Your task to perform on an android device: move a message to another label in the gmail app Image 0: 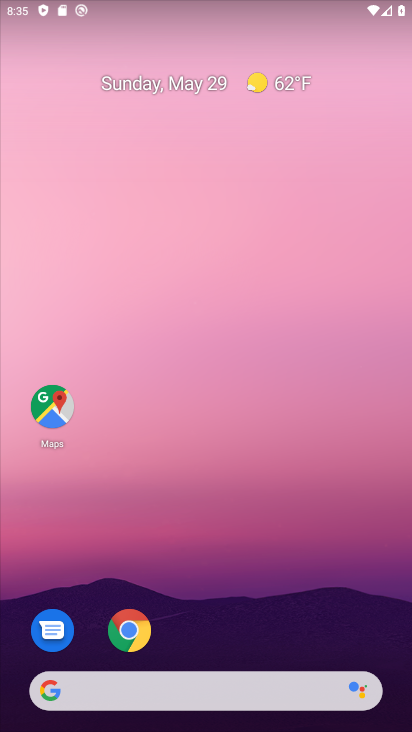
Step 0: drag from (397, 612) to (387, 52)
Your task to perform on an android device: move a message to another label in the gmail app Image 1: 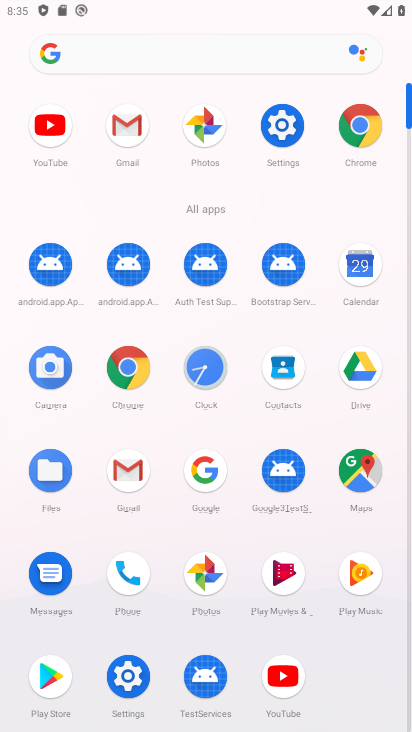
Step 1: click (131, 469)
Your task to perform on an android device: move a message to another label in the gmail app Image 2: 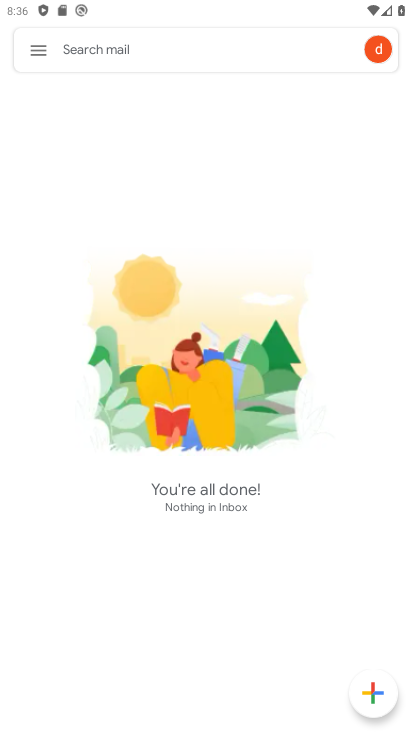
Step 2: drag from (405, 700) to (361, 141)
Your task to perform on an android device: move a message to another label in the gmail app Image 3: 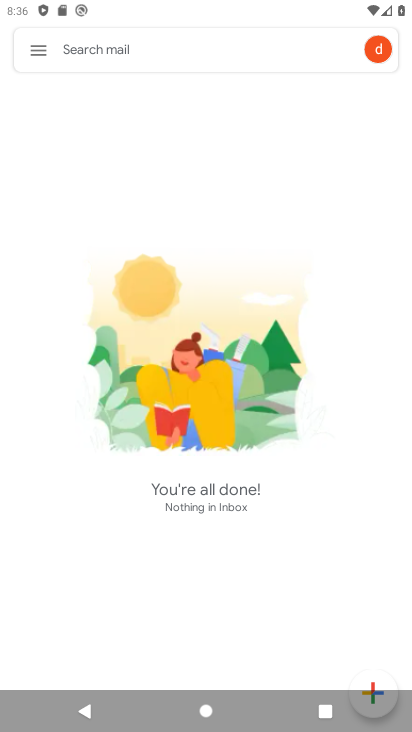
Step 3: drag from (396, 651) to (315, 42)
Your task to perform on an android device: move a message to another label in the gmail app Image 4: 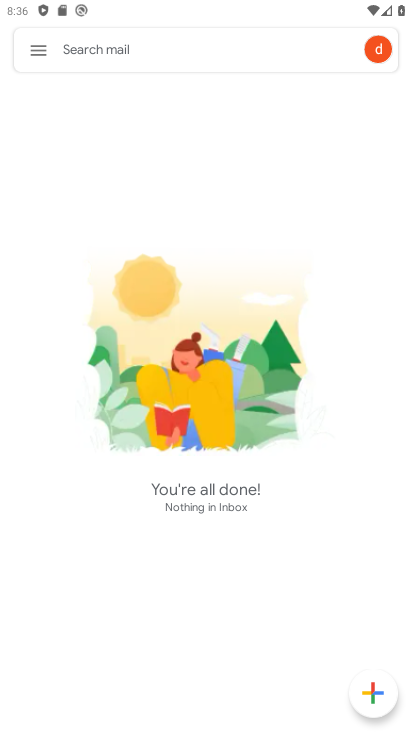
Step 4: drag from (382, 620) to (336, 114)
Your task to perform on an android device: move a message to another label in the gmail app Image 5: 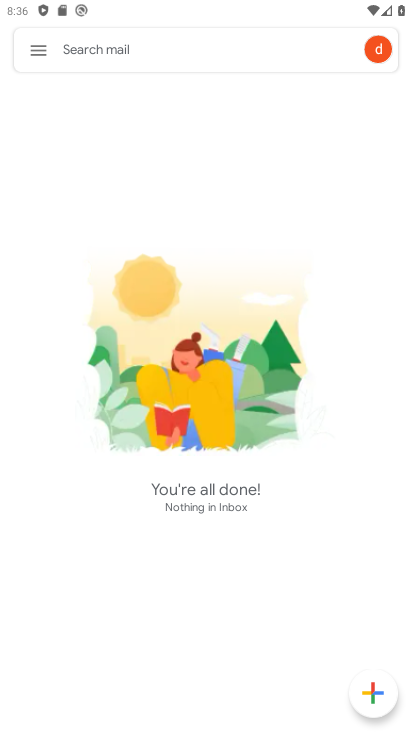
Step 5: click (39, 52)
Your task to perform on an android device: move a message to another label in the gmail app Image 6: 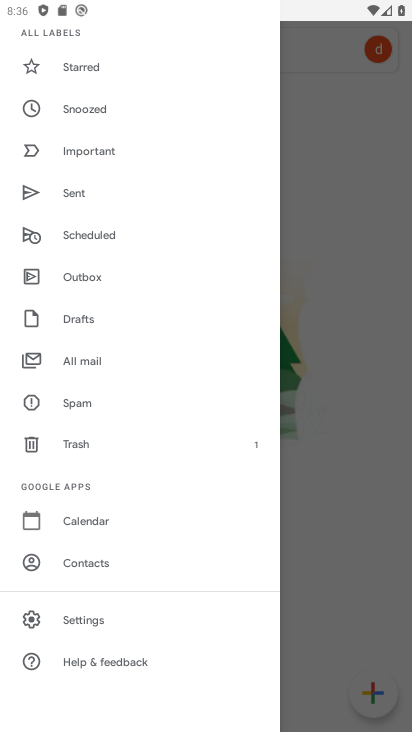
Step 6: drag from (175, 81) to (229, 547)
Your task to perform on an android device: move a message to another label in the gmail app Image 7: 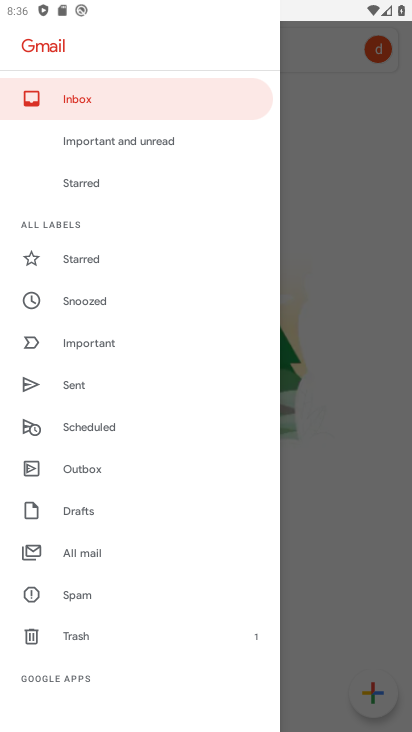
Step 7: click (70, 97)
Your task to perform on an android device: move a message to another label in the gmail app Image 8: 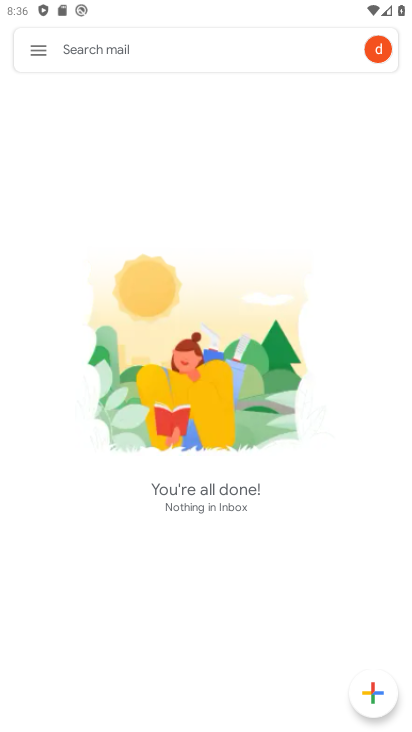
Step 8: task complete